Your task to perform on an android device: turn off translation in the chrome app Image 0: 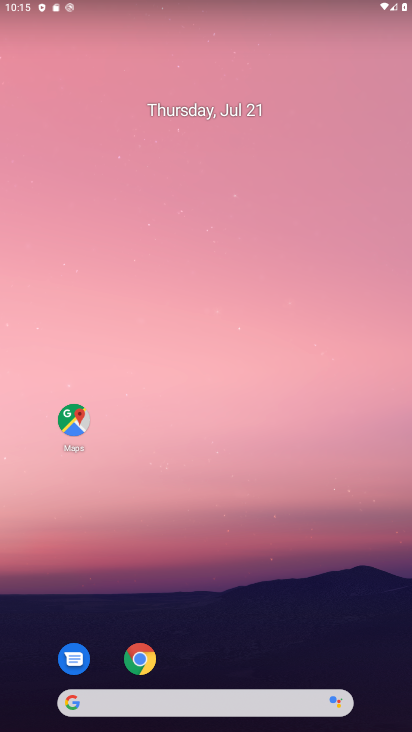
Step 0: click (149, 653)
Your task to perform on an android device: turn off translation in the chrome app Image 1: 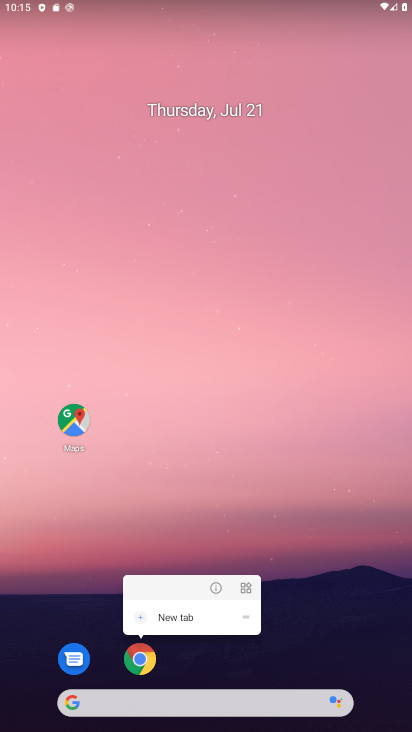
Step 1: click (145, 657)
Your task to perform on an android device: turn off translation in the chrome app Image 2: 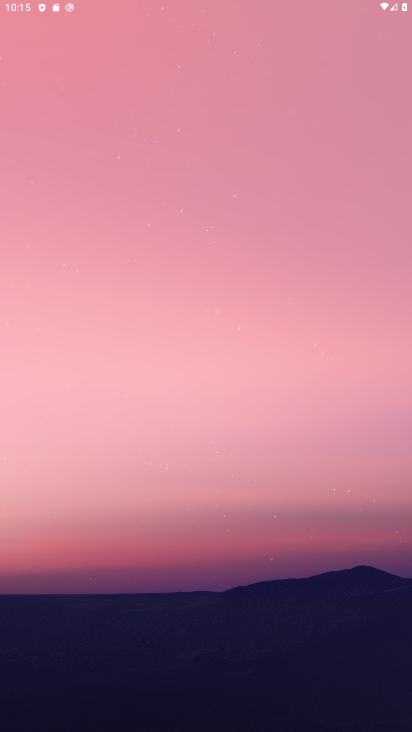
Step 2: click (145, 657)
Your task to perform on an android device: turn off translation in the chrome app Image 3: 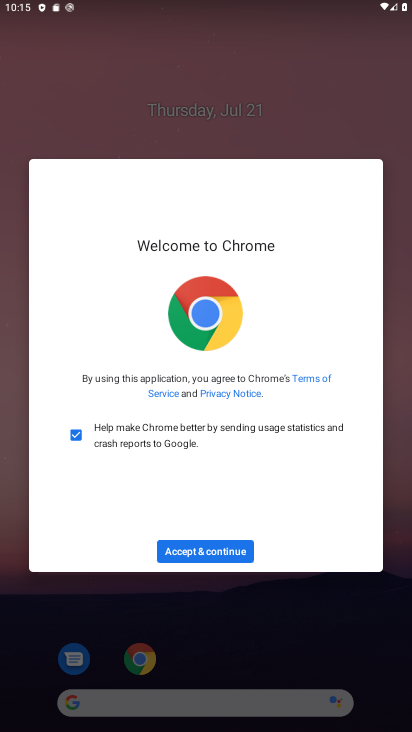
Step 3: click (202, 541)
Your task to perform on an android device: turn off translation in the chrome app Image 4: 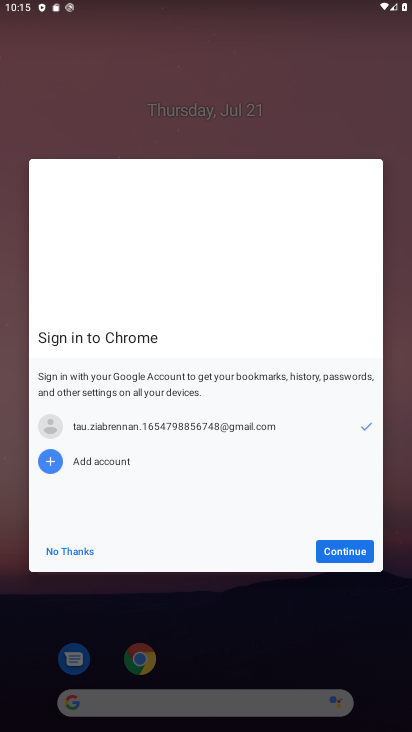
Step 4: click (353, 540)
Your task to perform on an android device: turn off translation in the chrome app Image 5: 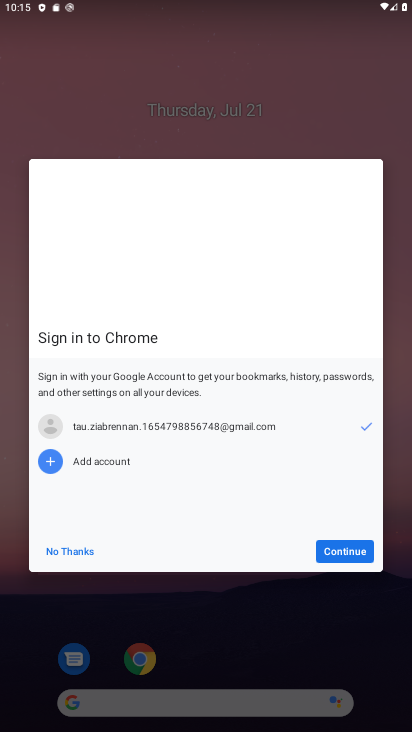
Step 5: click (359, 553)
Your task to perform on an android device: turn off translation in the chrome app Image 6: 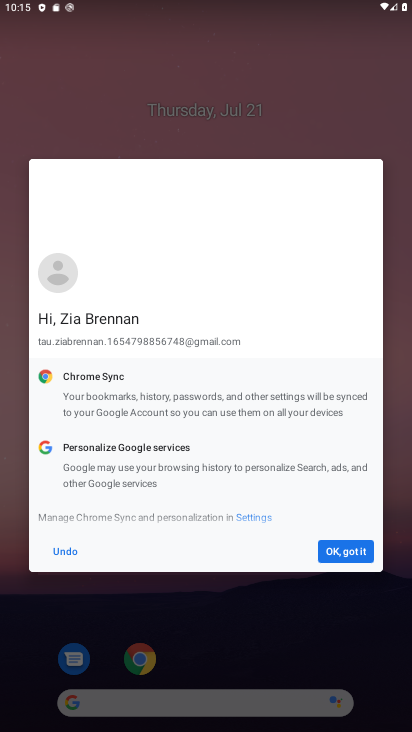
Step 6: click (359, 553)
Your task to perform on an android device: turn off translation in the chrome app Image 7: 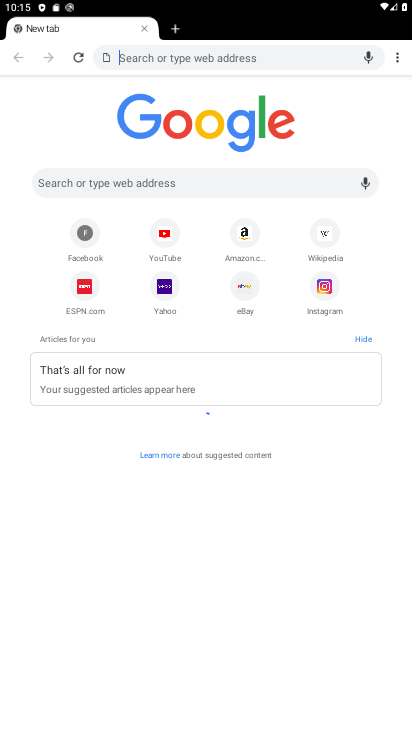
Step 7: click (395, 50)
Your task to perform on an android device: turn off translation in the chrome app Image 8: 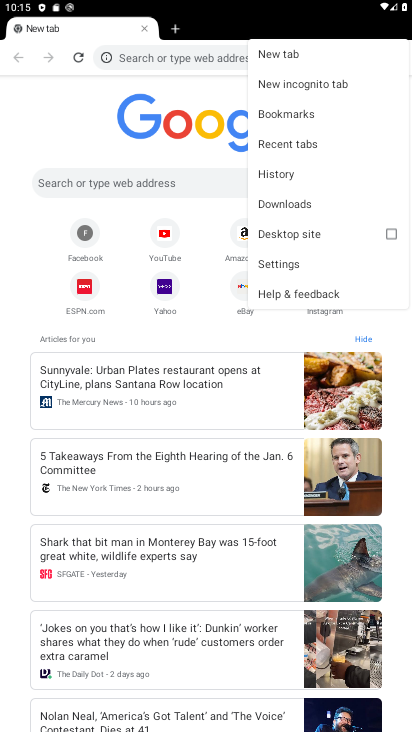
Step 8: click (268, 261)
Your task to perform on an android device: turn off translation in the chrome app Image 9: 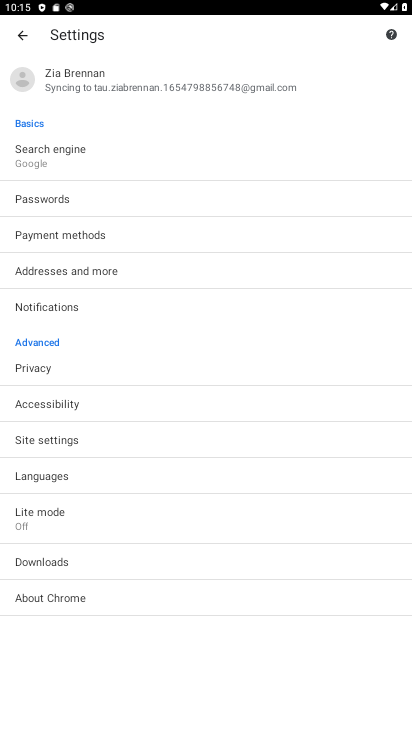
Step 9: click (79, 475)
Your task to perform on an android device: turn off translation in the chrome app Image 10: 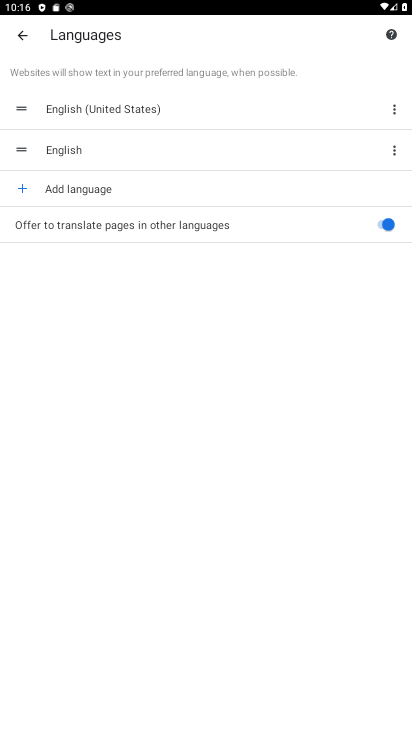
Step 10: click (375, 229)
Your task to perform on an android device: turn off translation in the chrome app Image 11: 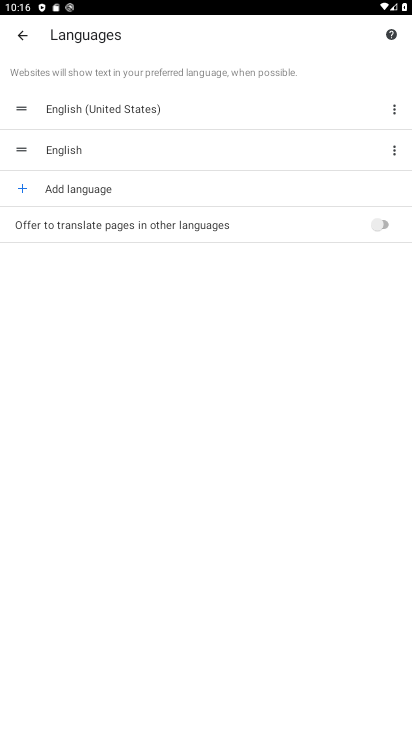
Step 11: task complete